Your task to perform on an android device: create a new album in the google photos Image 0: 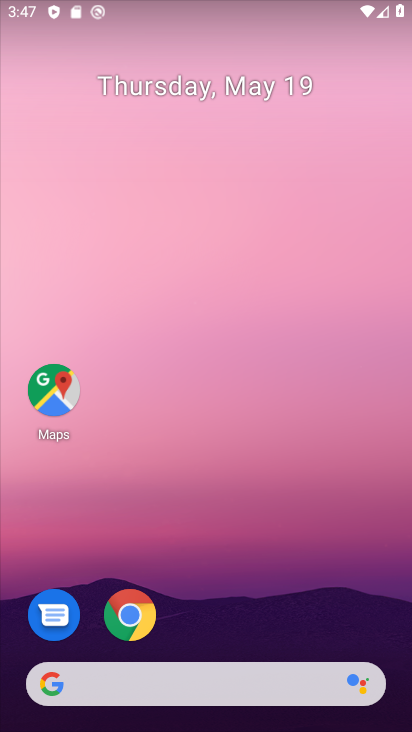
Step 0: drag from (339, 564) to (264, 30)
Your task to perform on an android device: create a new album in the google photos Image 1: 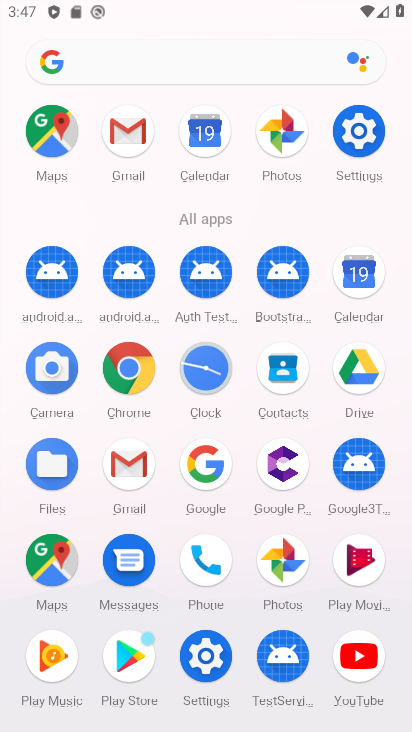
Step 1: click (291, 565)
Your task to perform on an android device: create a new album in the google photos Image 2: 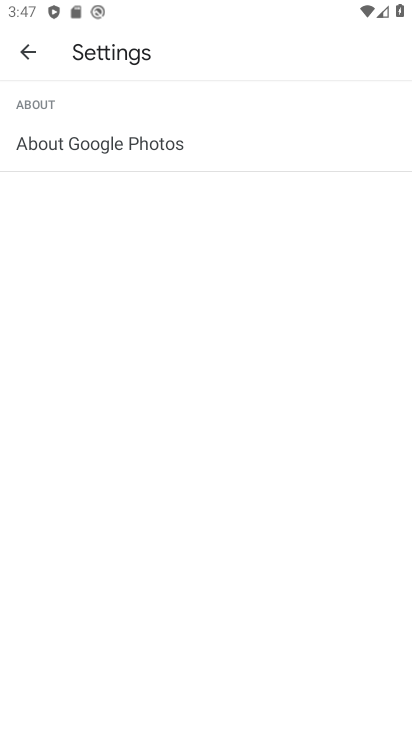
Step 2: click (22, 52)
Your task to perform on an android device: create a new album in the google photos Image 3: 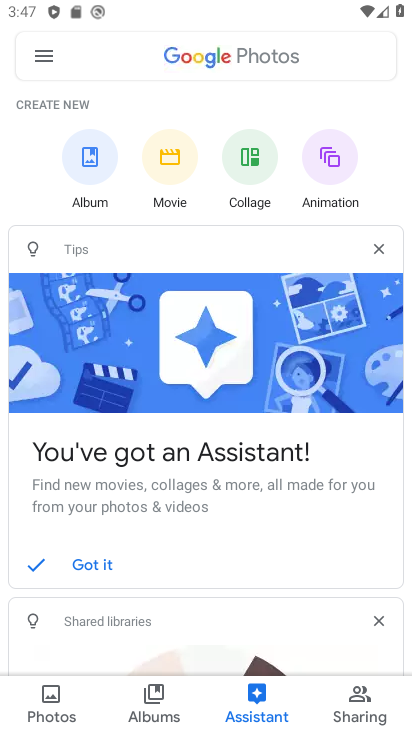
Step 3: click (47, 710)
Your task to perform on an android device: create a new album in the google photos Image 4: 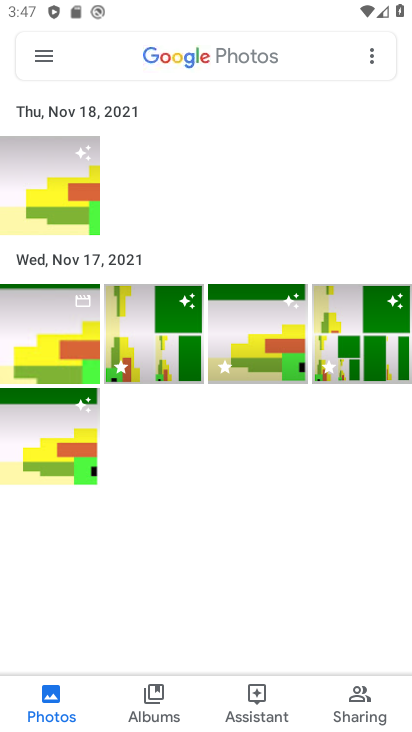
Step 4: click (131, 339)
Your task to perform on an android device: create a new album in the google photos Image 5: 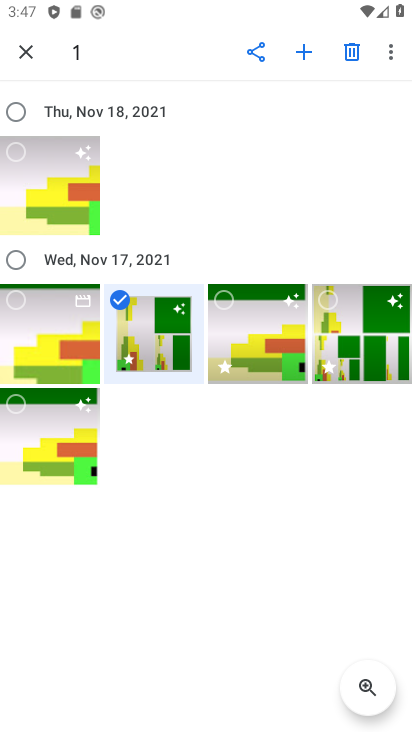
Step 5: click (227, 355)
Your task to perform on an android device: create a new album in the google photos Image 6: 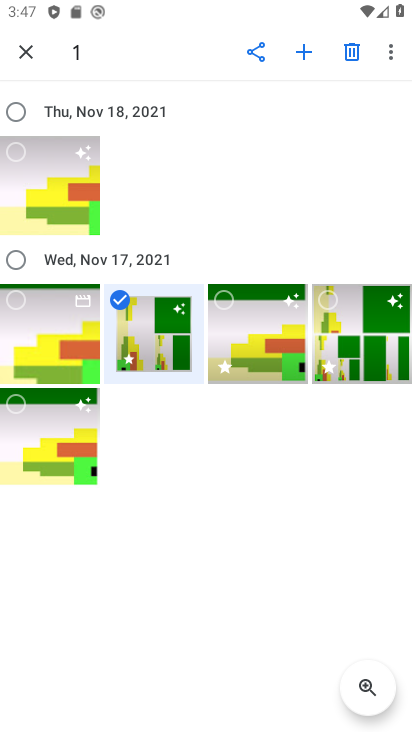
Step 6: click (334, 343)
Your task to perform on an android device: create a new album in the google photos Image 7: 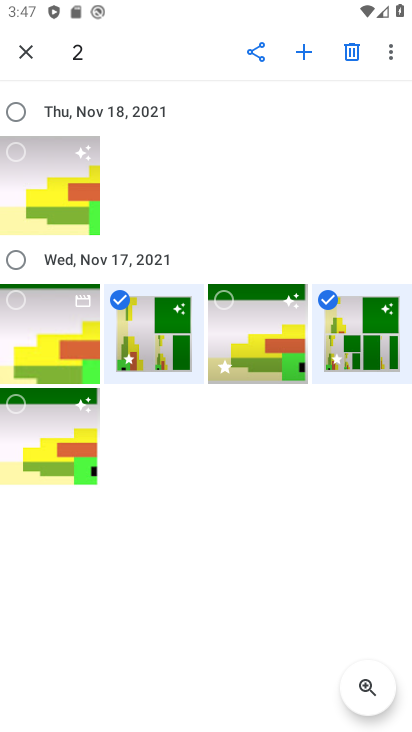
Step 7: click (303, 52)
Your task to perform on an android device: create a new album in the google photos Image 8: 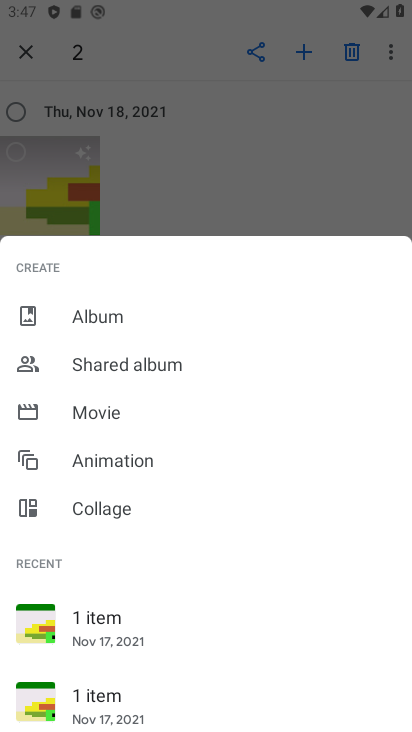
Step 8: click (84, 310)
Your task to perform on an android device: create a new album in the google photos Image 9: 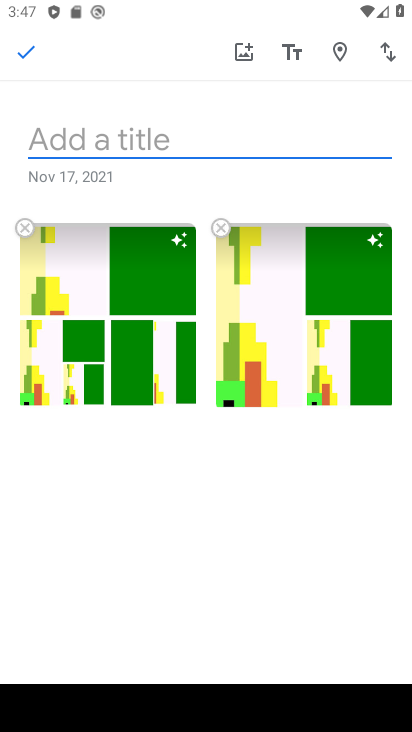
Step 9: click (86, 131)
Your task to perform on an android device: create a new album in the google photos Image 10: 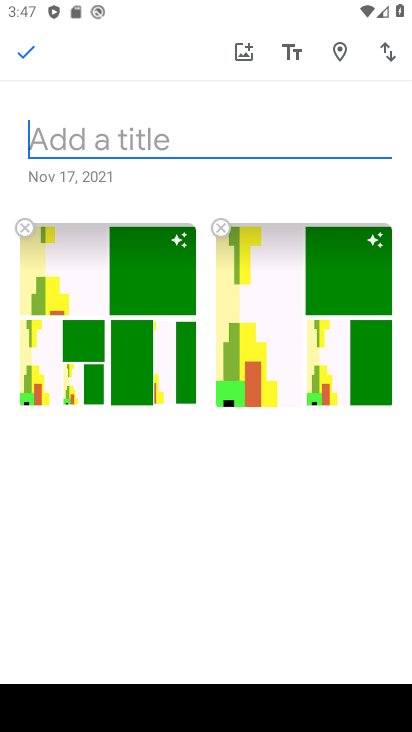
Step 10: type "new 3"
Your task to perform on an android device: create a new album in the google photos Image 11: 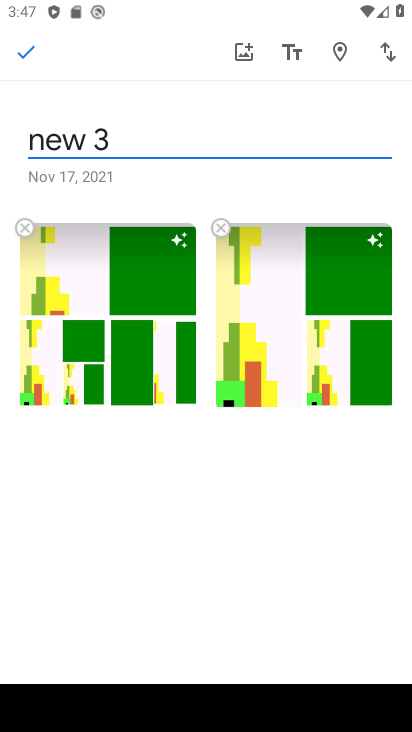
Step 11: click (21, 56)
Your task to perform on an android device: create a new album in the google photos Image 12: 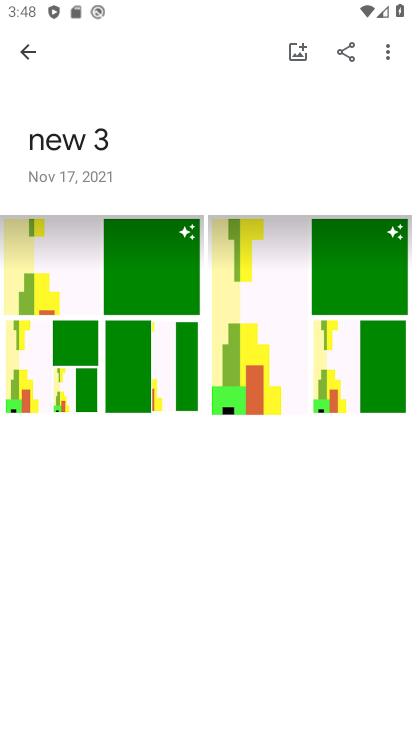
Step 12: task complete